Your task to perform on an android device: open sync settings in chrome Image 0: 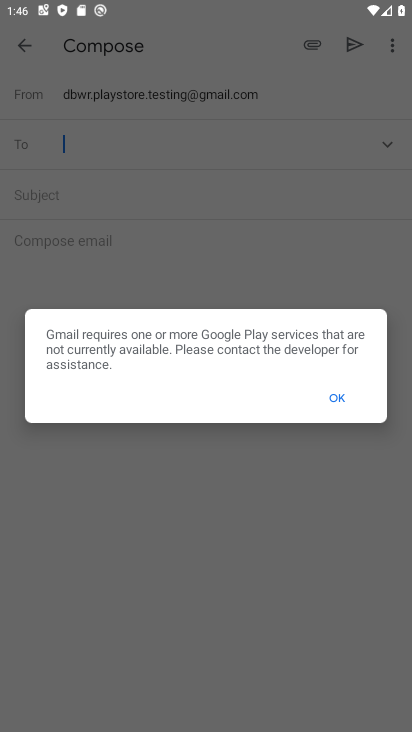
Step 0: press back button
Your task to perform on an android device: open sync settings in chrome Image 1: 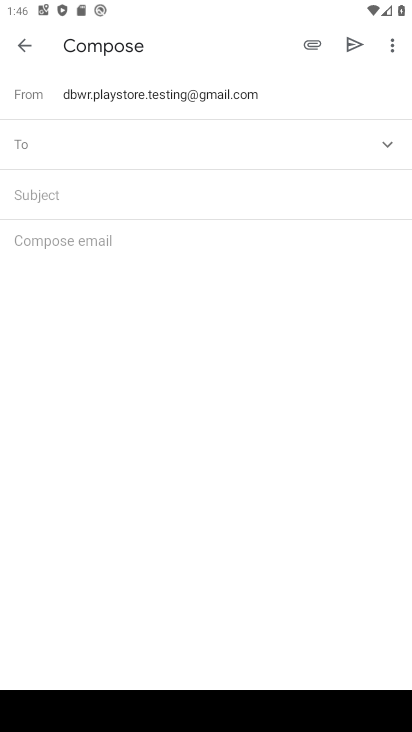
Step 1: press back button
Your task to perform on an android device: open sync settings in chrome Image 2: 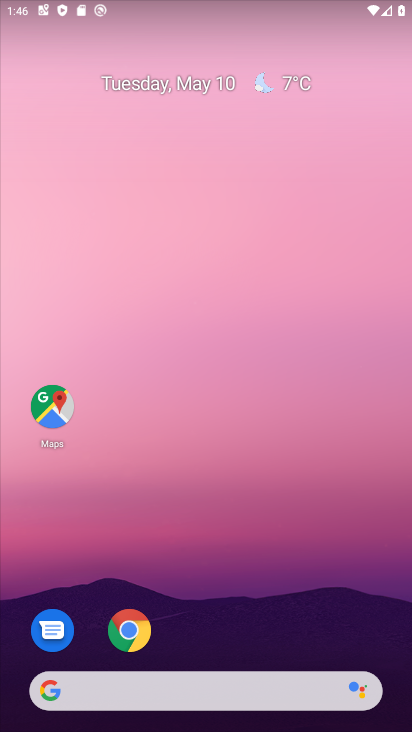
Step 2: drag from (235, 529) to (155, 0)
Your task to perform on an android device: open sync settings in chrome Image 3: 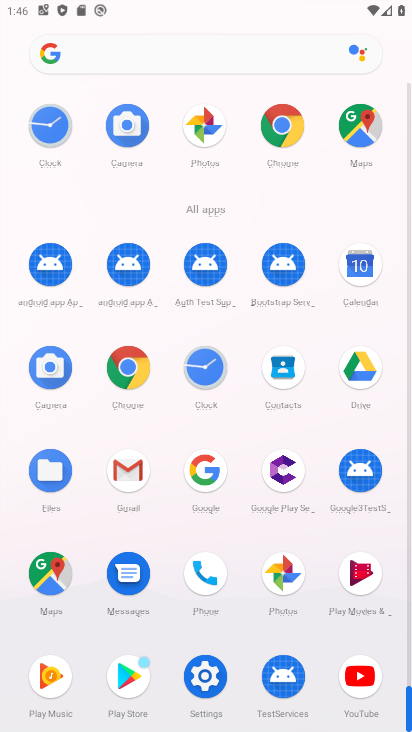
Step 3: drag from (10, 558) to (11, 260)
Your task to perform on an android device: open sync settings in chrome Image 4: 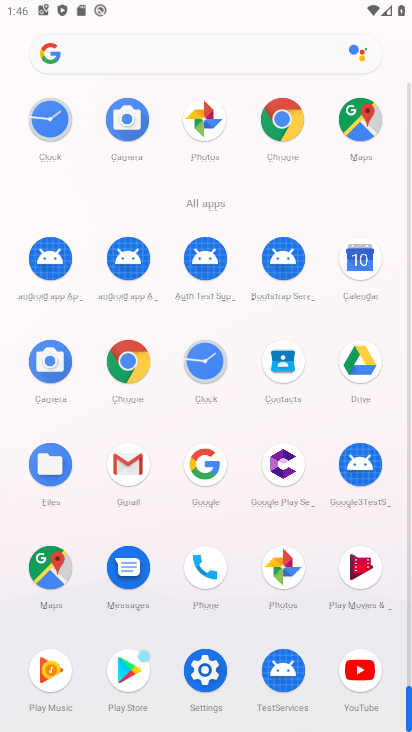
Step 4: click (124, 359)
Your task to perform on an android device: open sync settings in chrome Image 5: 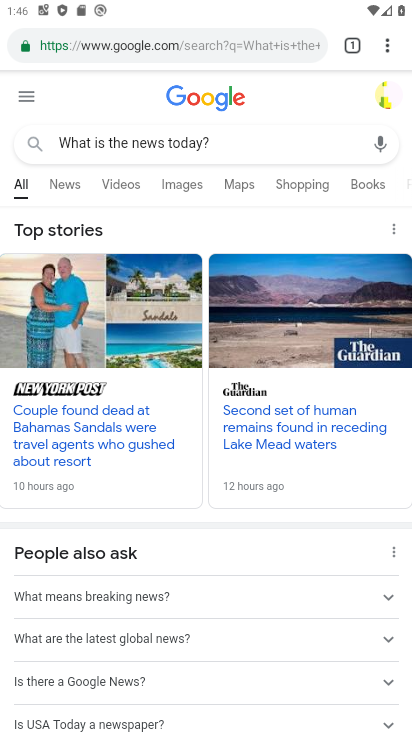
Step 5: drag from (390, 42) to (241, 503)
Your task to perform on an android device: open sync settings in chrome Image 6: 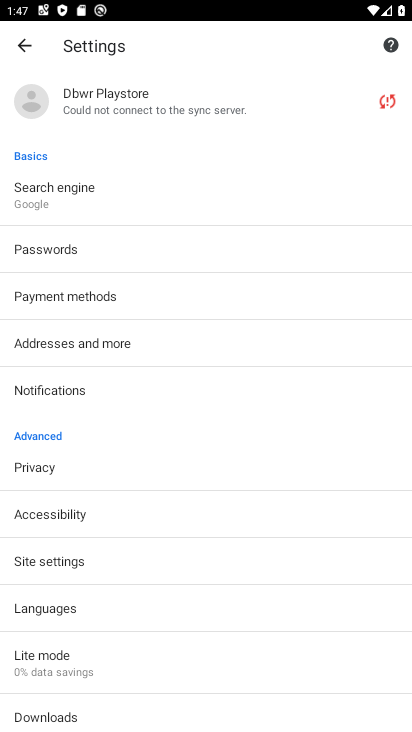
Step 6: click (120, 103)
Your task to perform on an android device: open sync settings in chrome Image 7: 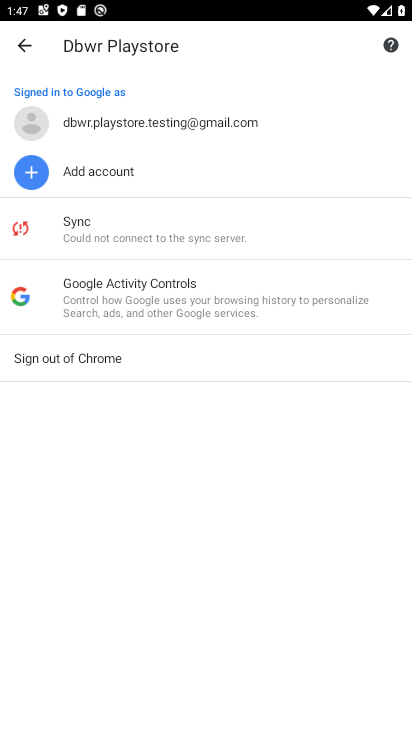
Step 7: click (126, 233)
Your task to perform on an android device: open sync settings in chrome Image 8: 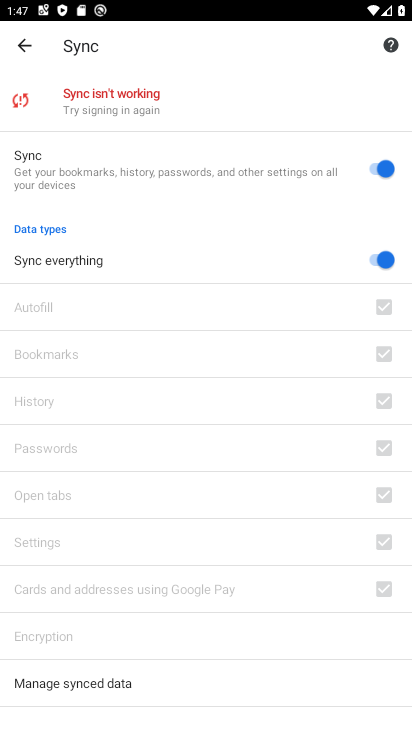
Step 8: task complete